Your task to perform on an android device: Open calendar and show me the first week of next month Image 0: 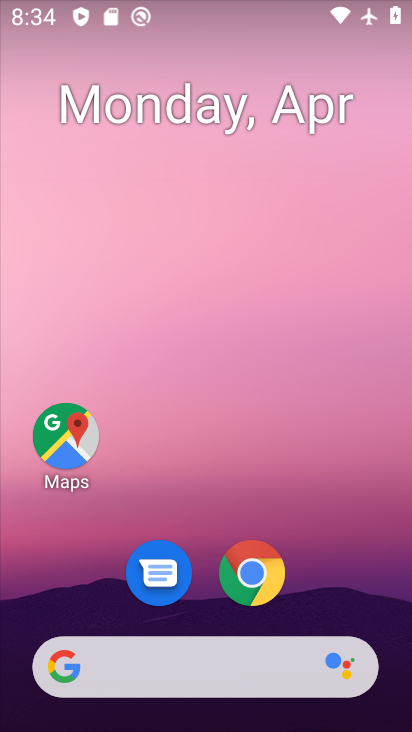
Step 0: drag from (326, 473) to (206, 0)
Your task to perform on an android device: Open calendar and show me the first week of next month Image 1: 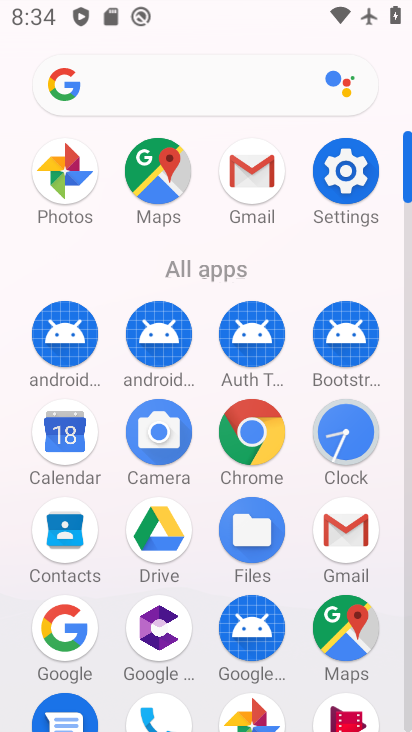
Step 1: click (63, 436)
Your task to perform on an android device: Open calendar and show me the first week of next month Image 2: 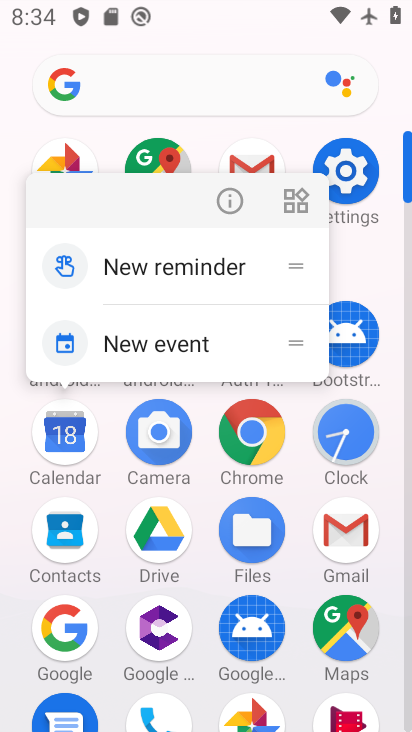
Step 2: click (66, 434)
Your task to perform on an android device: Open calendar and show me the first week of next month Image 3: 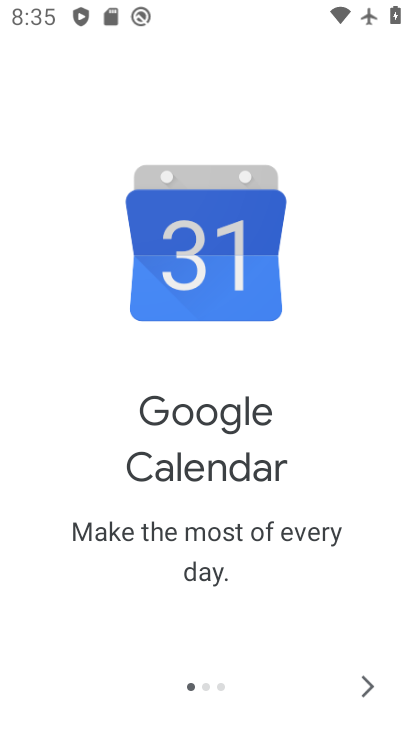
Step 3: click (367, 682)
Your task to perform on an android device: Open calendar and show me the first week of next month Image 4: 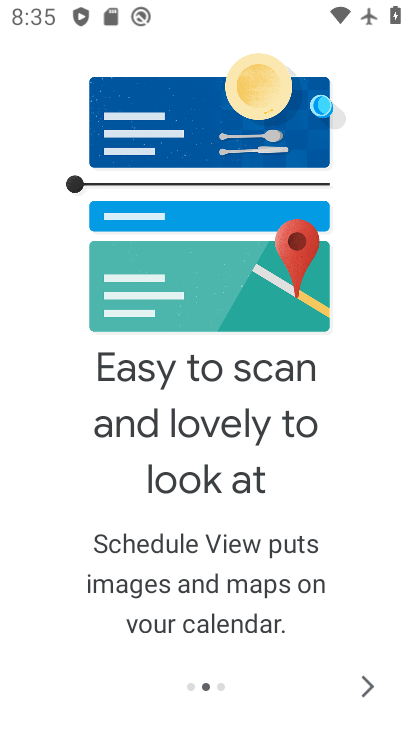
Step 4: click (367, 682)
Your task to perform on an android device: Open calendar and show me the first week of next month Image 5: 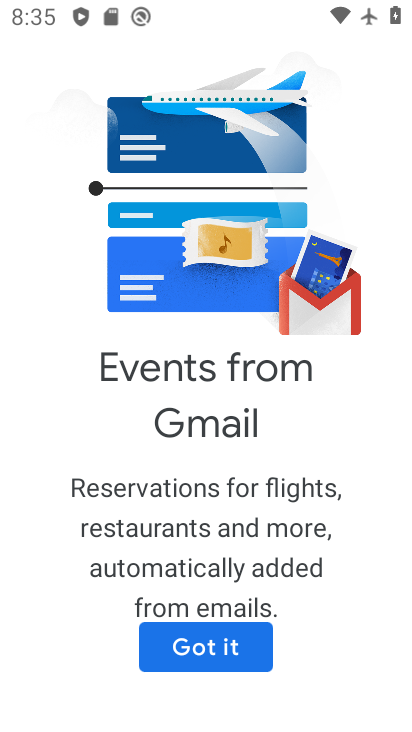
Step 5: click (225, 653)
Your task to perform on an android device: Open calendar and show me the first week of next month Image 6: 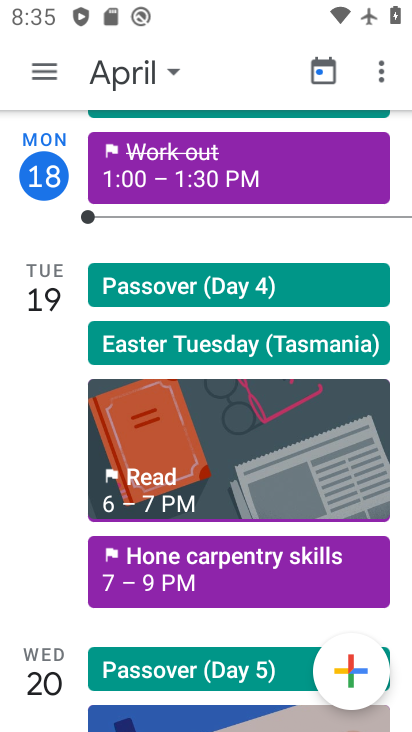
Step 6: click (39, 75)
Your task to perform on an android device: Open calendar and show me the first week of next month Image 7: 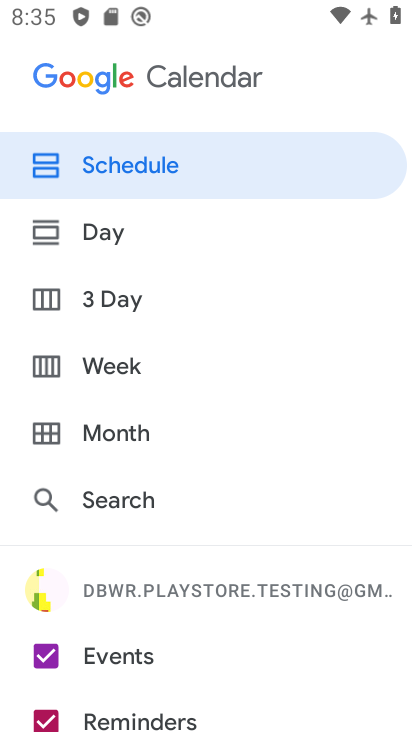
Step 7: click (120, 361)
Your task to perform on an android device: Open calendar and show me the first week of next month Image 8: 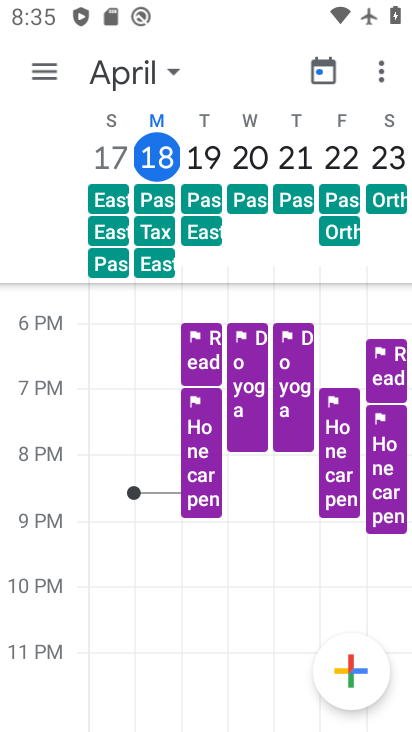
Step 8: click (169, 69)
Your task to perform on an android device: Open calendar and show me the first week of next month Image 9: 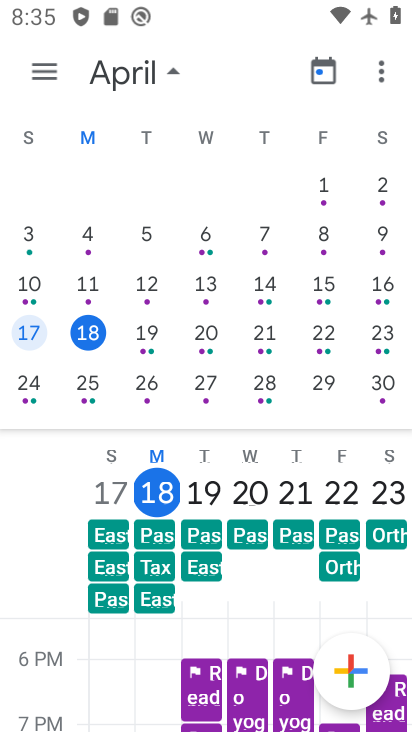
Step 9: drag from (353, 294) to (7, 306)
Your task to perform on an android device: Open calendar and show me the first week of next month Image 10: 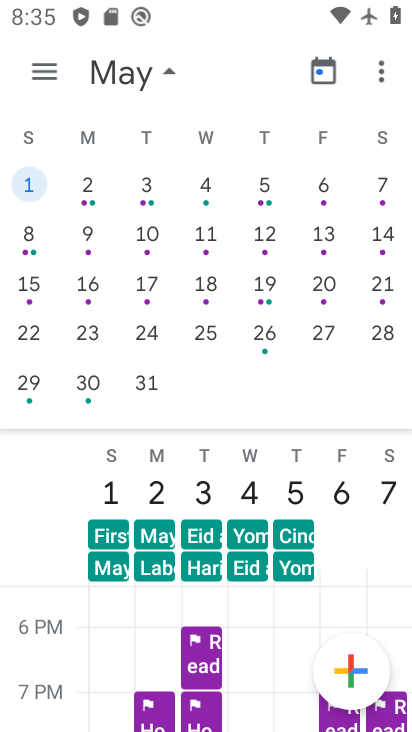
Step 10: click (36, 189)
Your task to perform on an android device: Open calendar and show me the first week of next month Image 11: 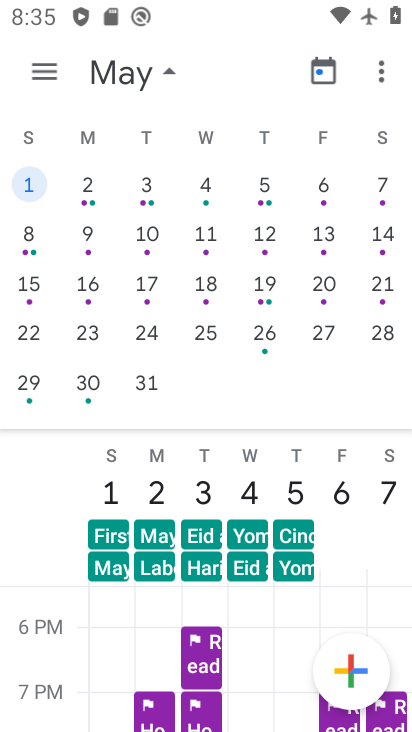
Step 11: task complete